Your task to perform on an android device: uninstall "Google Docs" Image 0: 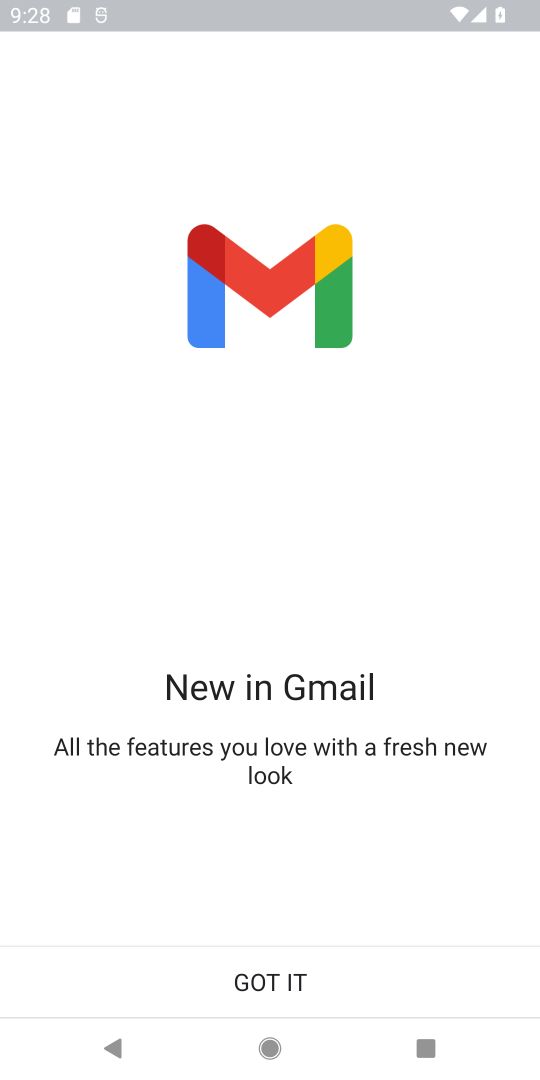
Step 0: press home button
Your task to perform on an android device: uninstall "Google Docs" Image 1: 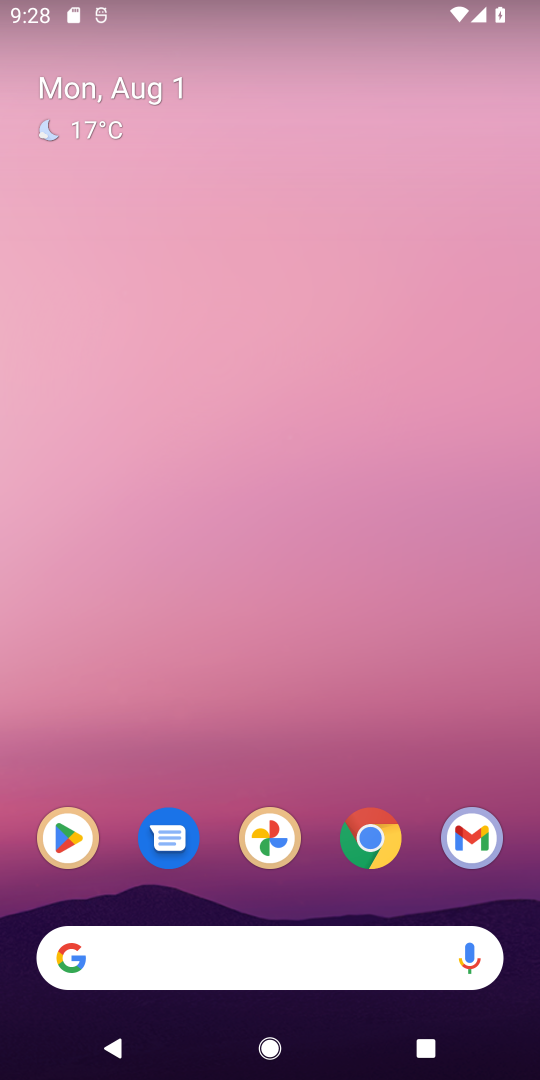
Step 1: click (52, 822)
Your task to perform on an android device: uninstall "Google Docs" Image 2: 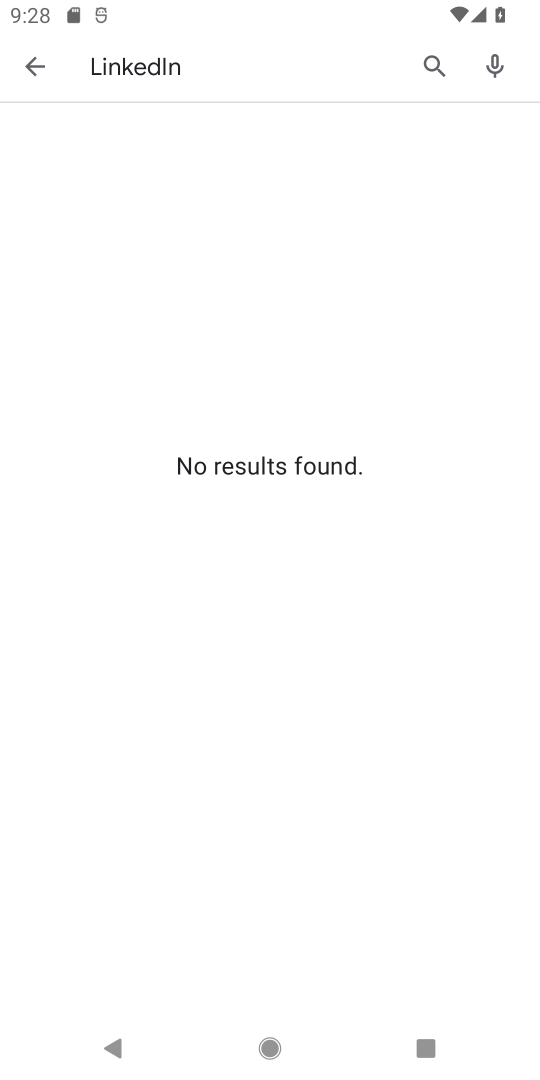
Step 2: click (432, 61)
Your task to perform on an android device: uninstall "Google Docs" Image 3: 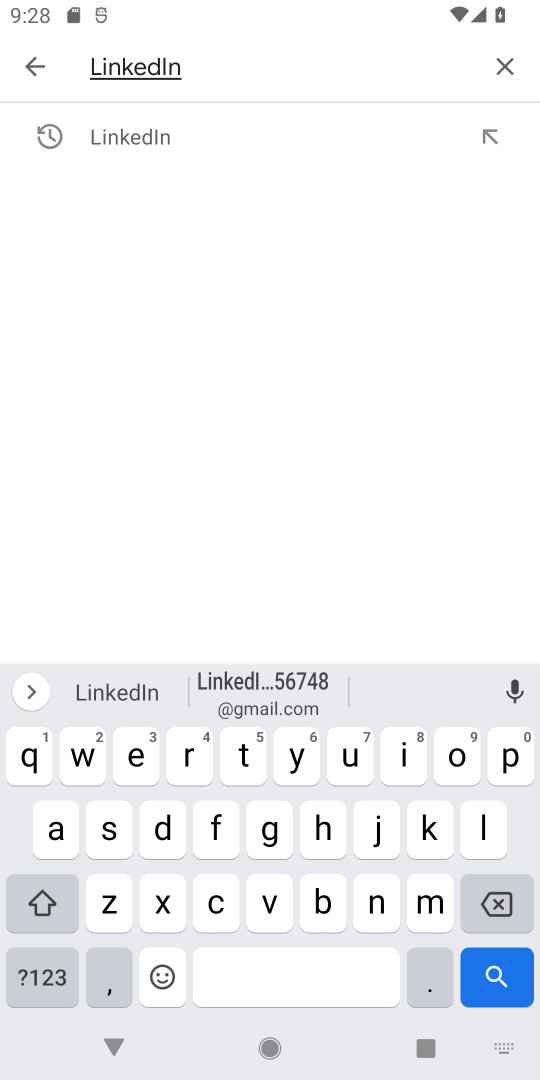
Step 3: click (495, 61)
Your task to perform on an android device: uninstall "Google Docs" Image 4: 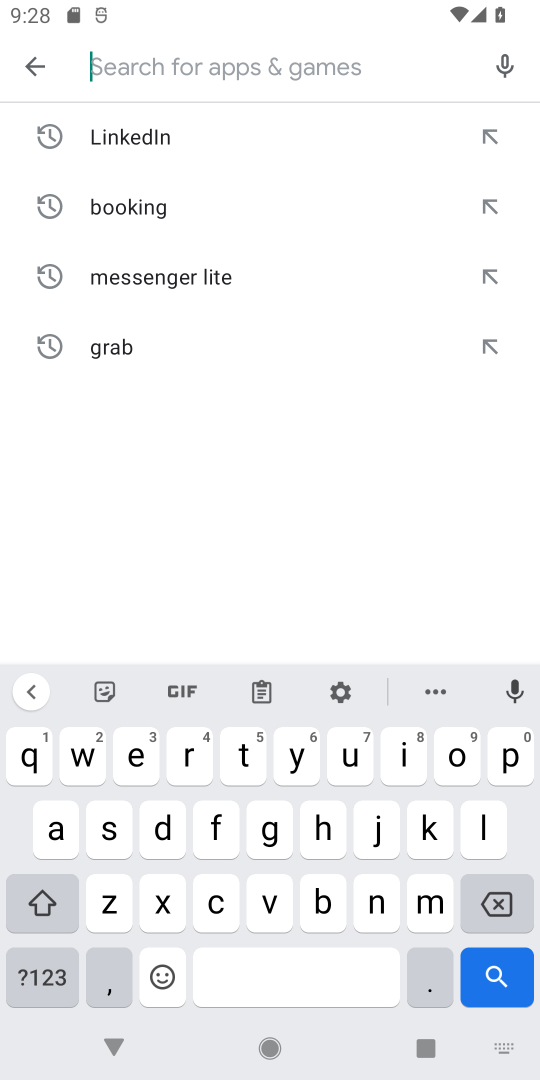
Step 4: type "google docs"
Your task to perform on an android device: uninstall "Google Docs" Image 5: 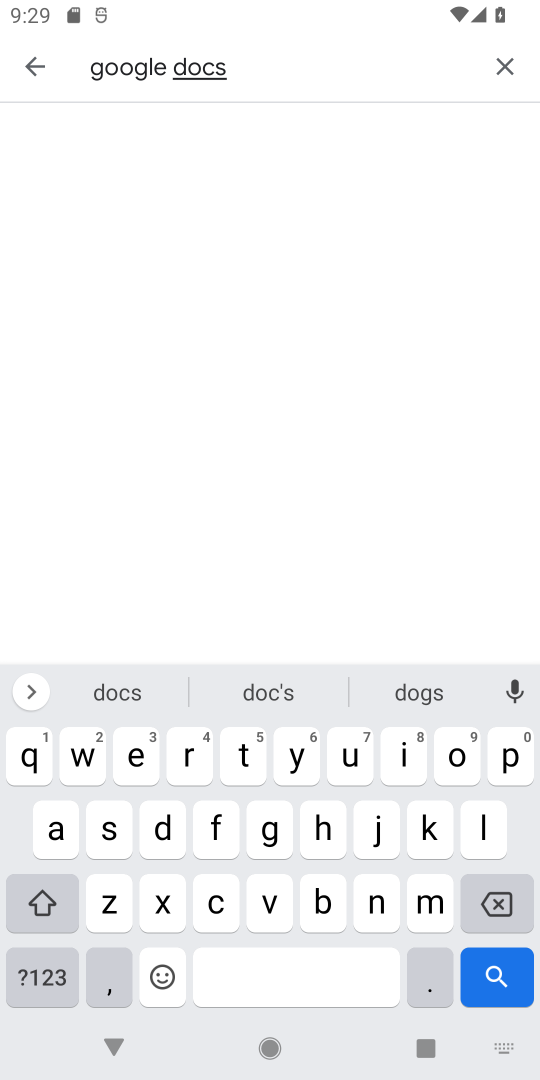
Step 5: click (495, 975)
Your task to perform on an android device: uninstall "Google Docs" Image 6: 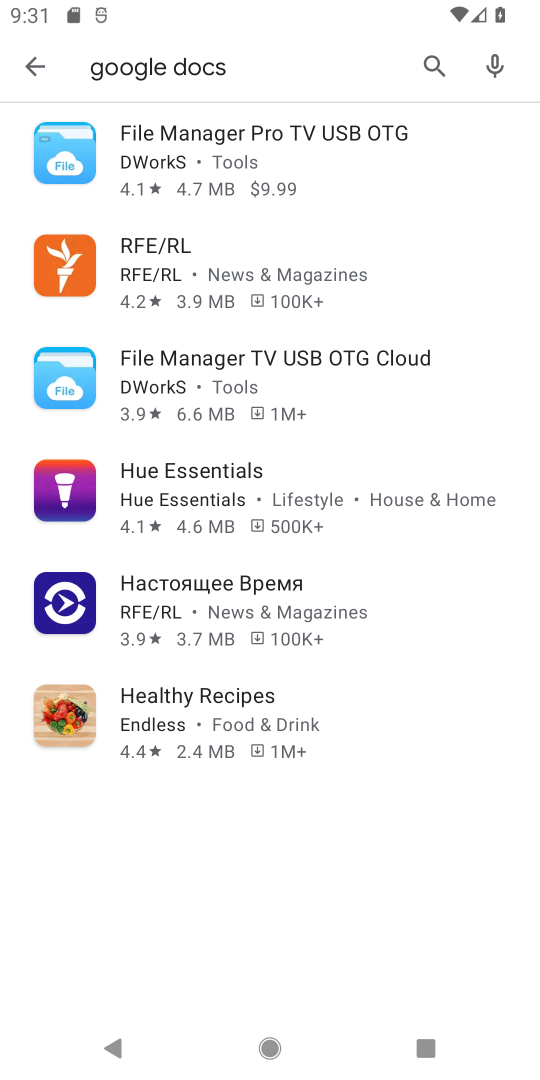
Step 6: task complete